Your task to perform on an android device: Open accessibility settings Image 0: 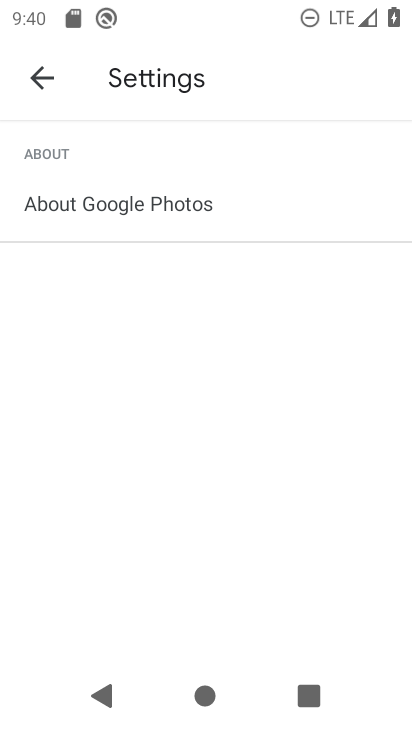
Step 0: press home button
Your task to perform on an android device: Open accessibility settings Image 1: 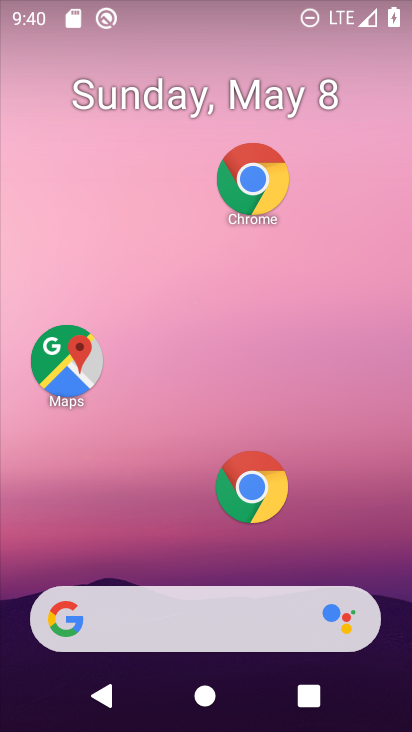
Step 1: drag from (186, 554) to (206, 38)
Your task to perform on an android device: Open accessibility settings Image 2: 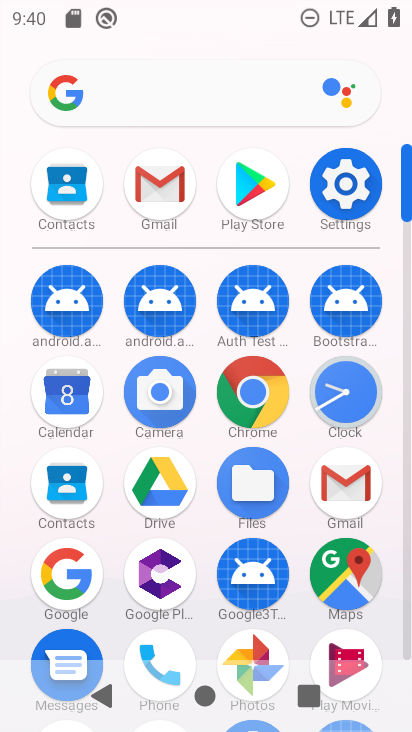
Step 2: click (334, 173)
Your task to perform on an android device: Open accessibility settings Image 3: 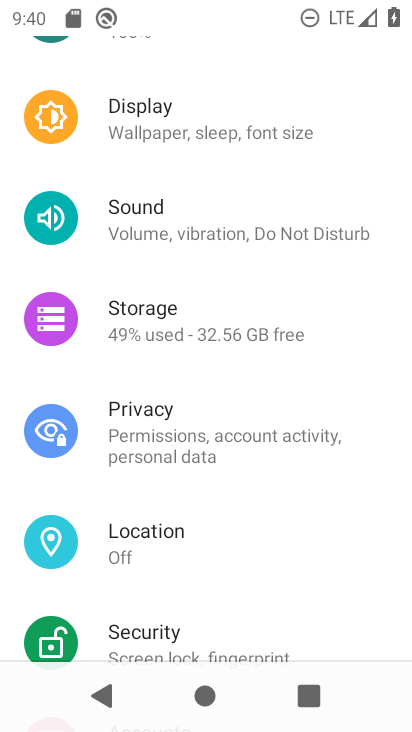
Step 3: drag from (238, 593) to (270, 105)
Your task to perform on an android device: Open accessibility settings Image 4: 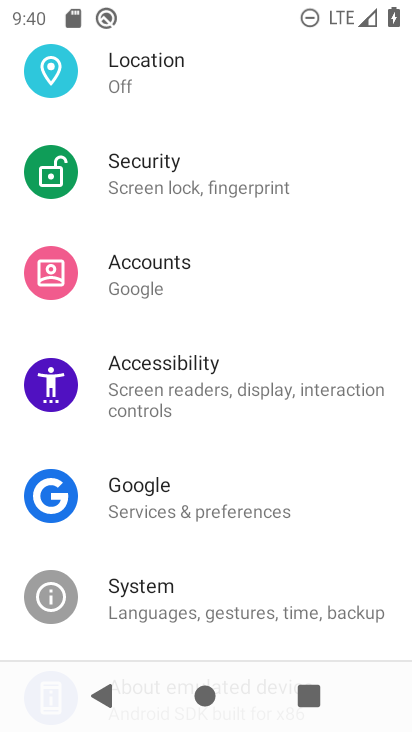
Step 4: click (242, 385)
Your task to perform on an android device: Open accessibility settings Image 5: 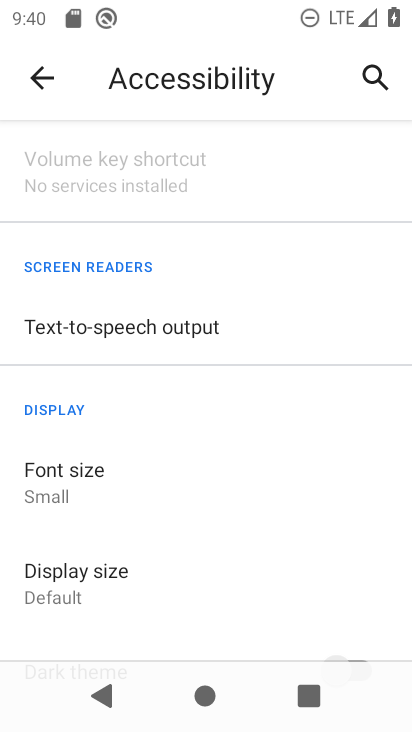
Step 5: task complete